Your task to perform on an android device: Do I have any events this weekend? Image 0: 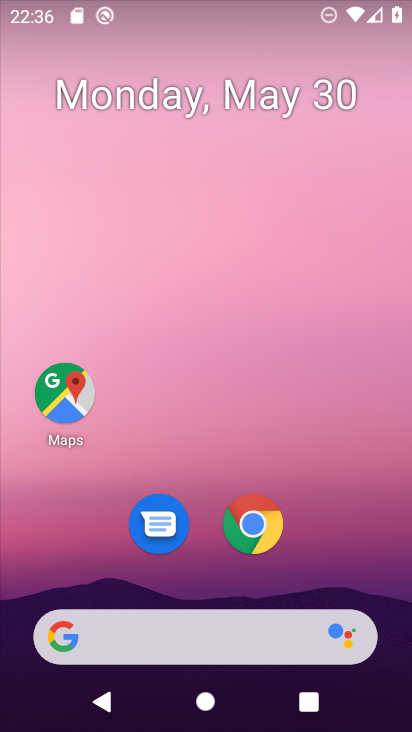
Step 0: drag from (316, 551) to (309, 9)
Your task to perform on an android device: Do I have any events this weekend? Image 1: 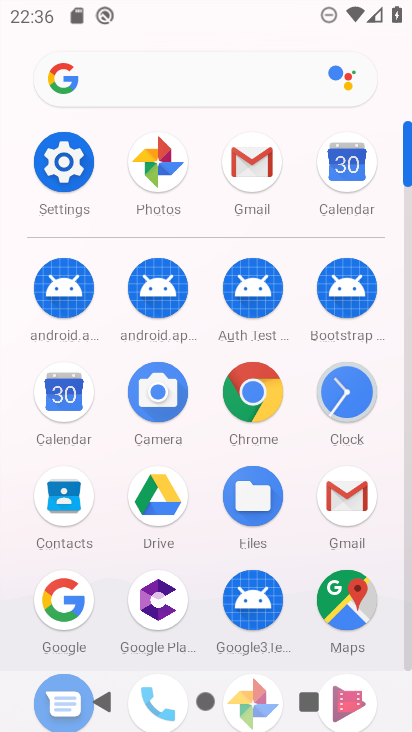
Step 1: click (340, 164)
Your task to perform on an android device: Do I have any events this weekend? Image 2: 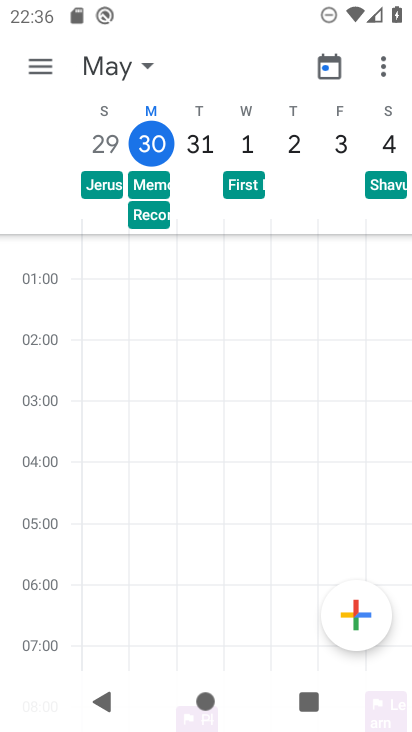
Step 2: click (157, 146)
Your task to perform on an android device: Do I have any events this weekend? Image 3: 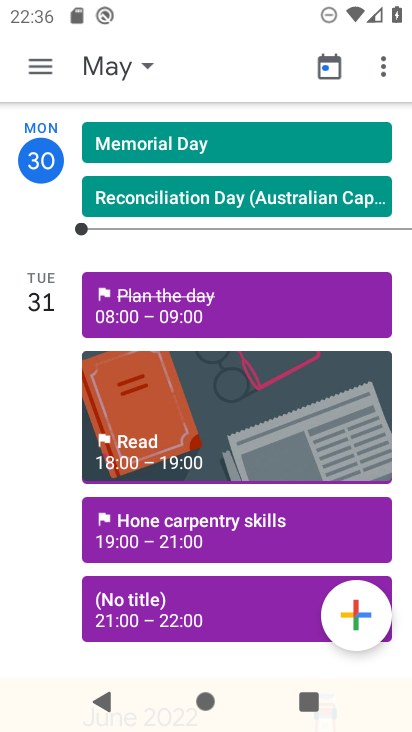
Step 3: task complete